Your task to perform on an android device: delete the emails in spam in the gmail app Image 0: 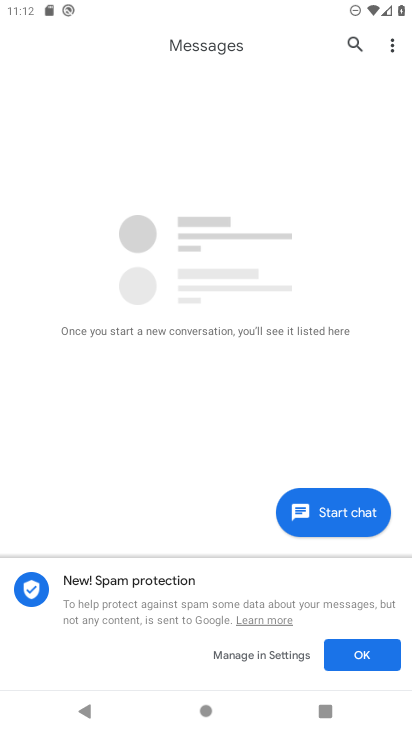
Step 0: press home button
Your task to perform on an android device: delete the emails in spam in the gmail app Image 1: 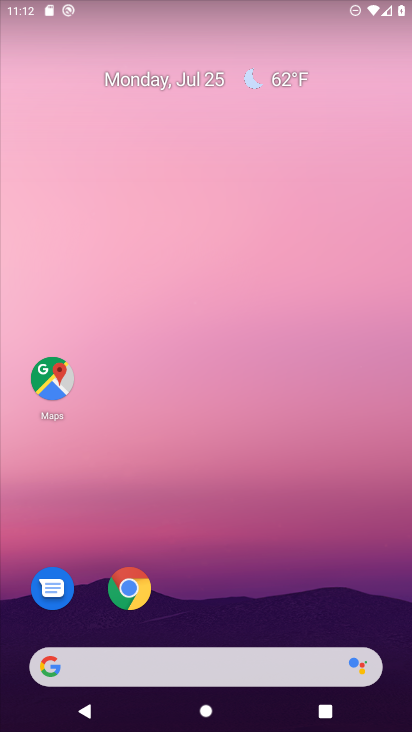
Step 1: drag from (20, 667) to (276, 151)
Your task to perform on an android device: delete the emails in spam in the gmail app Image 2: 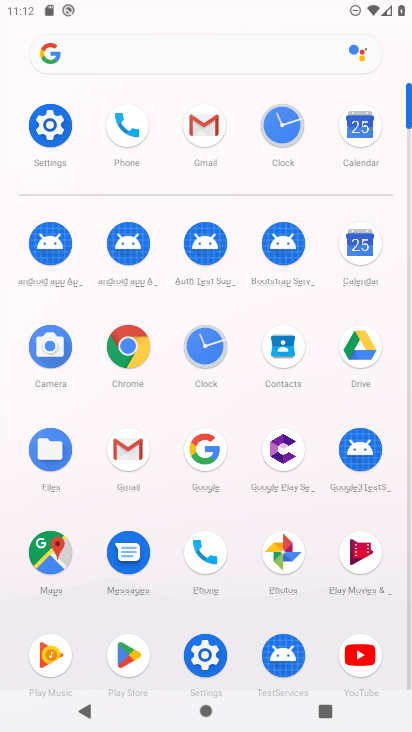
Step 2: click (205, 124)
Your task to perform on an android device: delete the emails in spam in the gmail app Image 3: 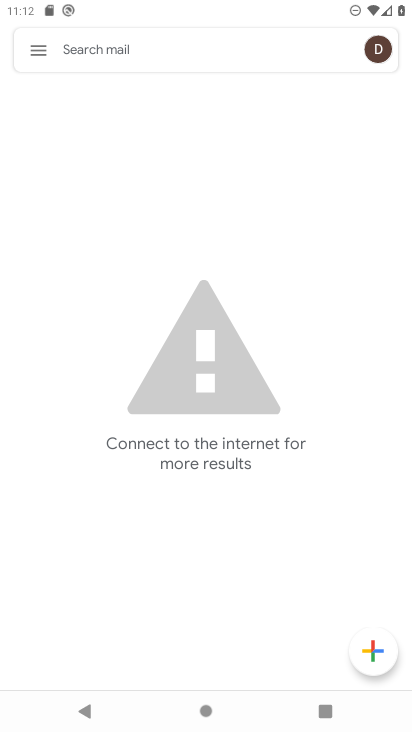
Step 3: click (29, 47)
Your task to perform on an android device: delete the emails in spam in the gmail app Image 4: 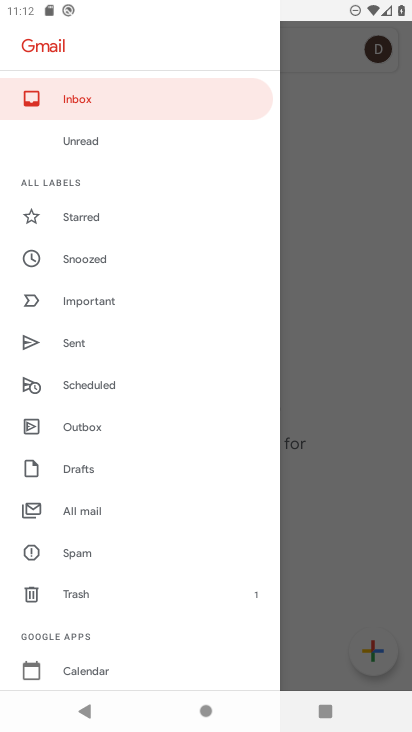
Step 4: click (95, 546)
Your task to perform on an android device: delete the emails in spam in the gmail app Image 5: 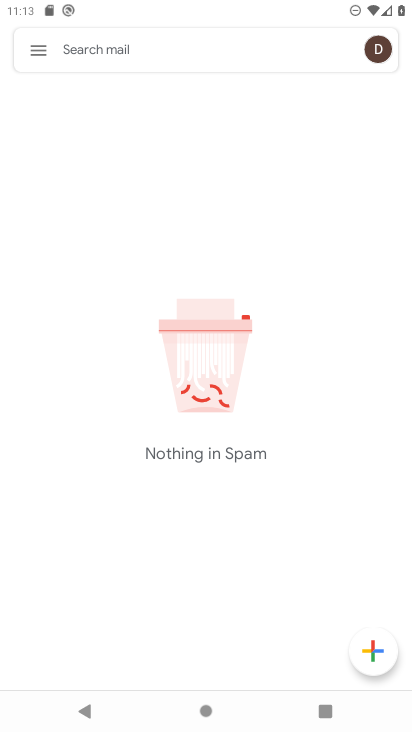
Step 5: task complete